Your task to perform on an android device: turn on translation in the chrome app Image 0: 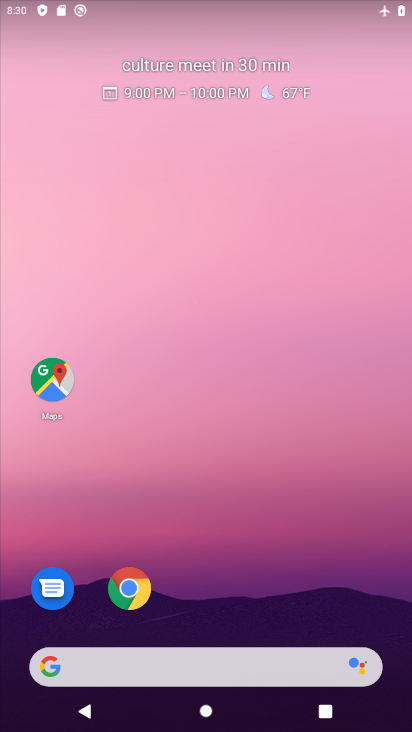
Step 0: drag from (320, 528) to (355, 22)
Your task to perform on an android device: turn on translation in the chrome app Image 1: 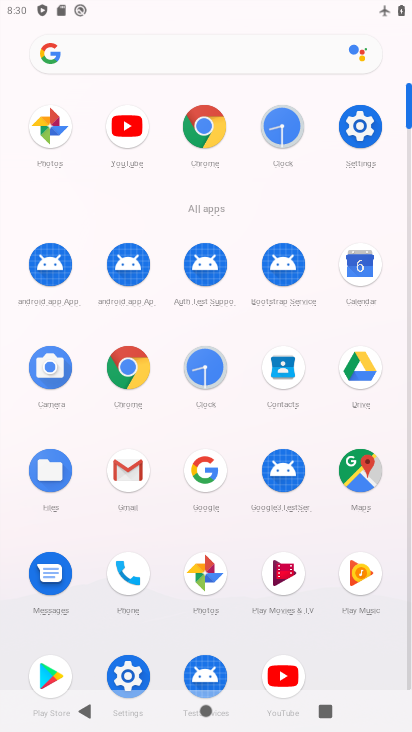
Step 1: click (202, 129)
Your task to perform on an android device: turn on translation in the chrome app Image 2: 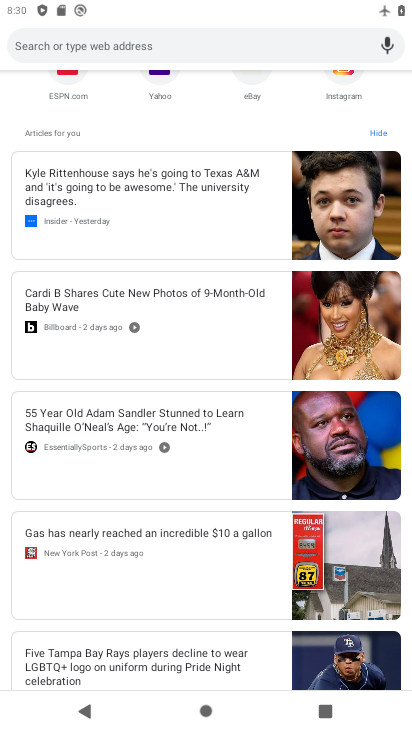
Step 2: drag from (104, 250) to (177, 624)
Your task to perform on an android device: turn on translation in the chrome app Image 3: 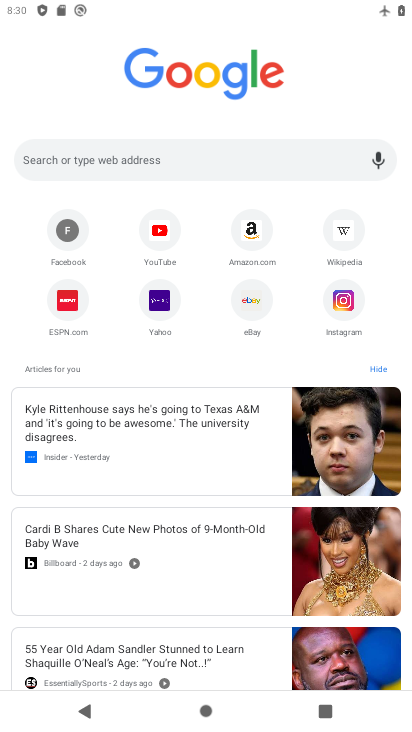
Step 3: drag from (185, 227) to (217, 606)
Your task to perform on an android device: turn on translation in the chrome app Image 4: 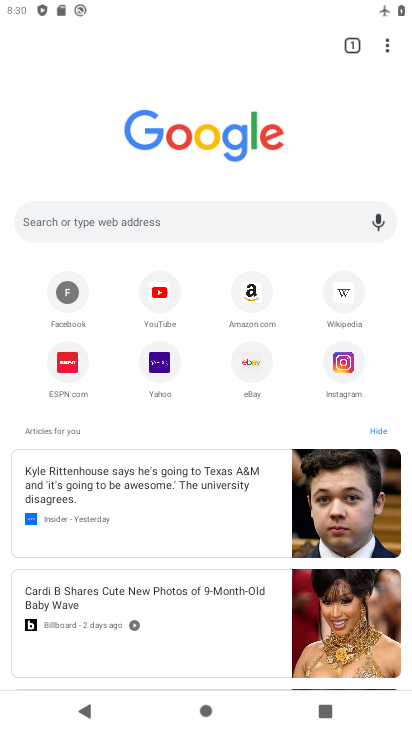
Step 4: drag from (380, 41) to (227, 382)
Your task to perform on an android device: turn on translation in the chrome app Image 5: 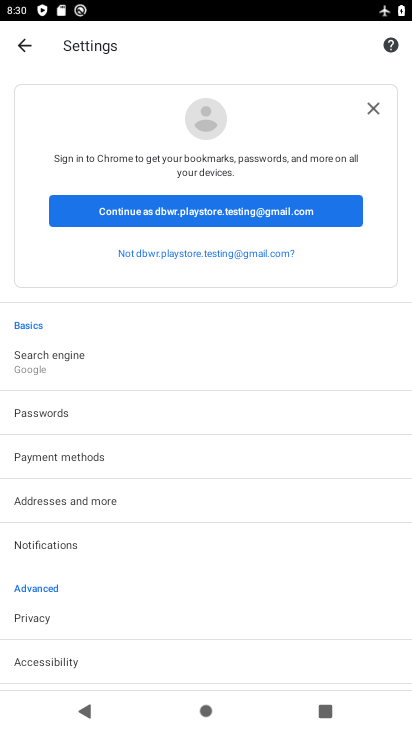
Step 5: drag from (136, 615) to (219, 242)
Your task to perform on an android device: turn on translation in the chrome app Image 6: 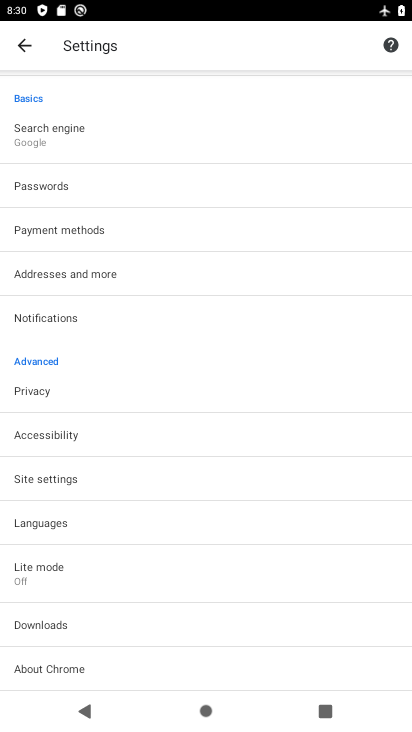
Step 6: click (120, 527)
Your task to perform on an android device: turn on translation in the chrome app Image 7: 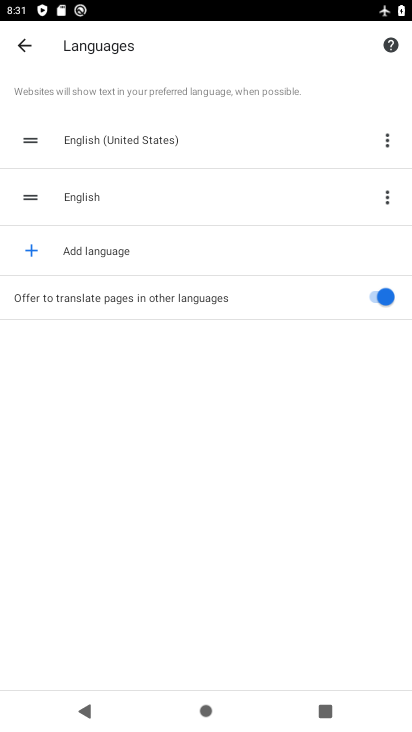
Step 7: task complete